Your task to perform on an android device: turn on sleep mode Image 0: 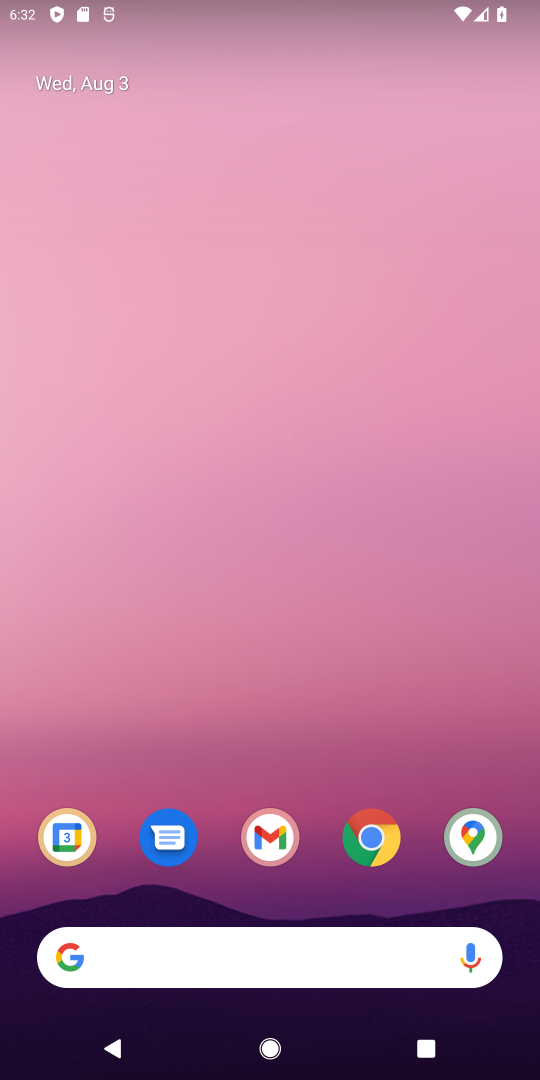
Step 0: press home button
Your task to perform on an android device: turn on sleep mode Image 1: 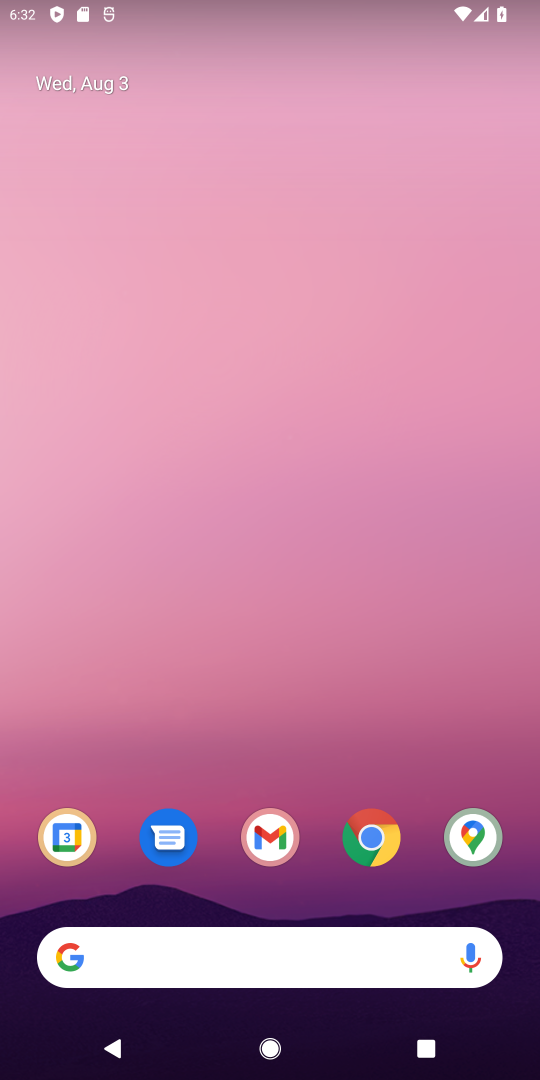
Step 1: drag from (309, 732) to (300, 101)
Your task to perform on an android device: turn on sleep mode Image 2: 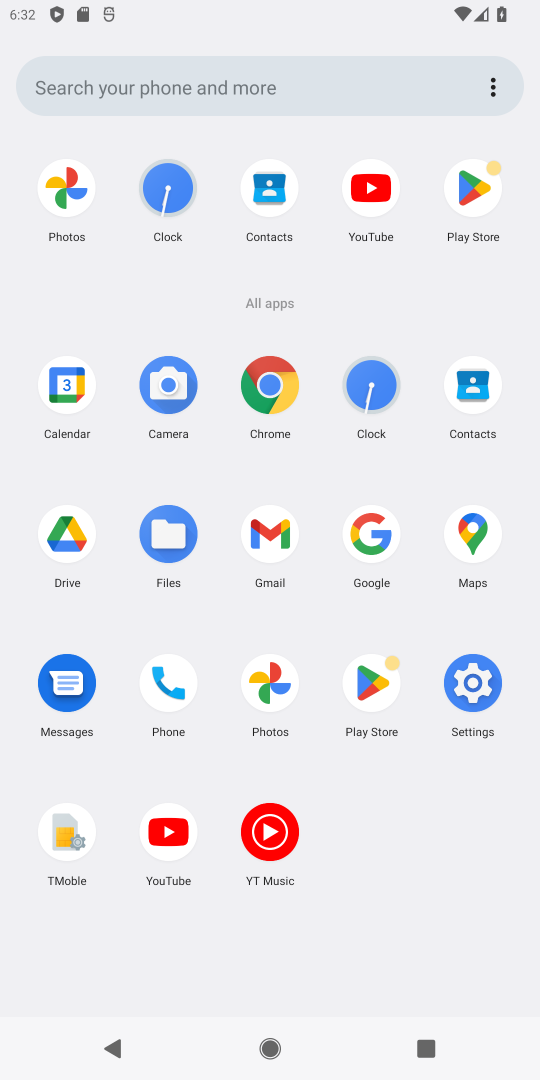
Step 2: click (462, 678)
Your task to perform on an android device: turn on sleep mode Image 3: 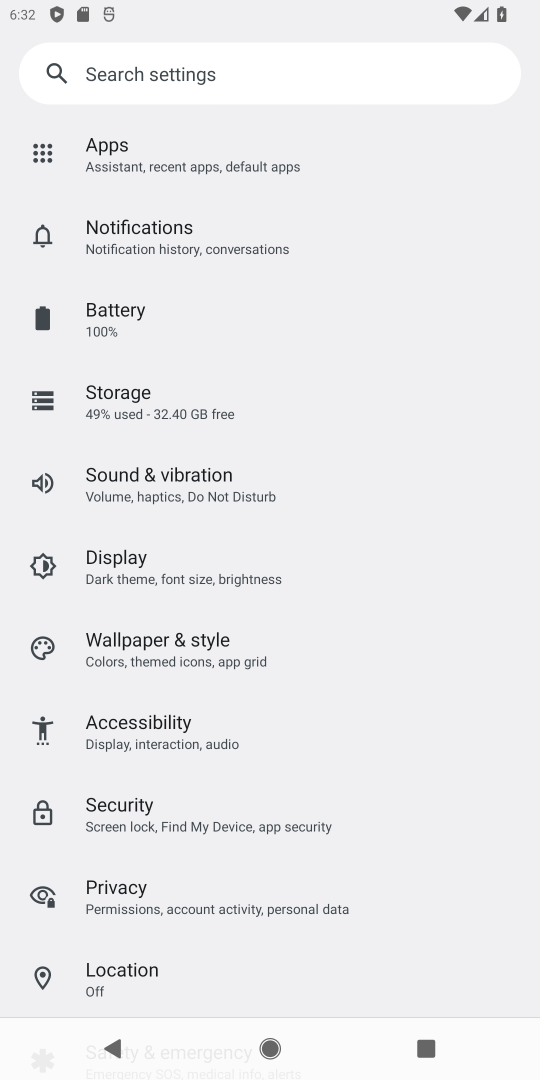
Step 3: click (210, 555)
Your task to perform on an android device: turn on sleep mode Image 4: 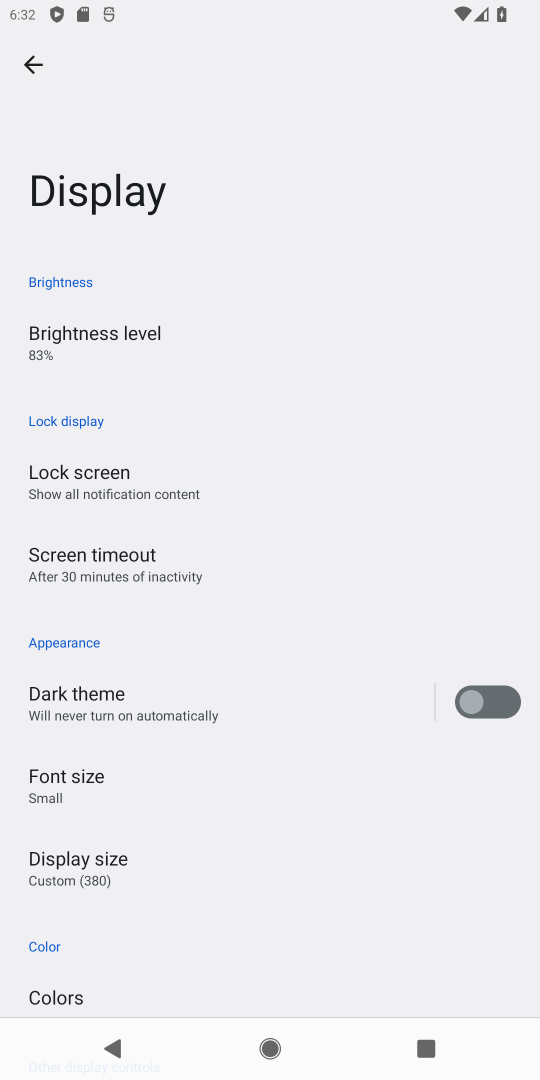
Step 4: task complete